Your task to perform on an android device: Go to network settings Image 0: 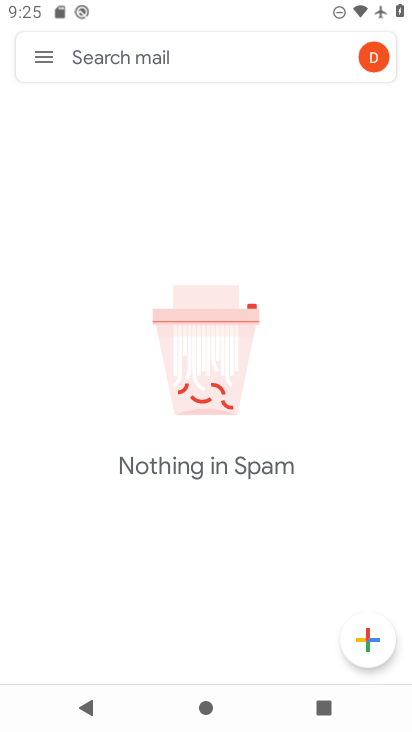
Step 0: press home button
Your task to perform on an android device: Go to network settings Image 1: 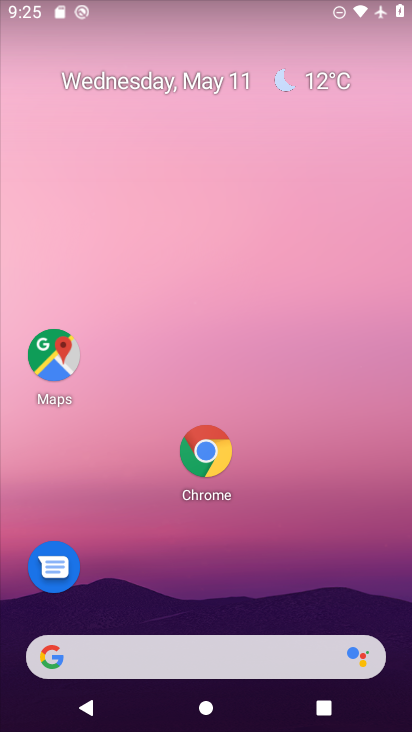
Step 1: drag from (164, 671) to (279, 181)
Your task to perform on an android device: Go to network settings Image 2: 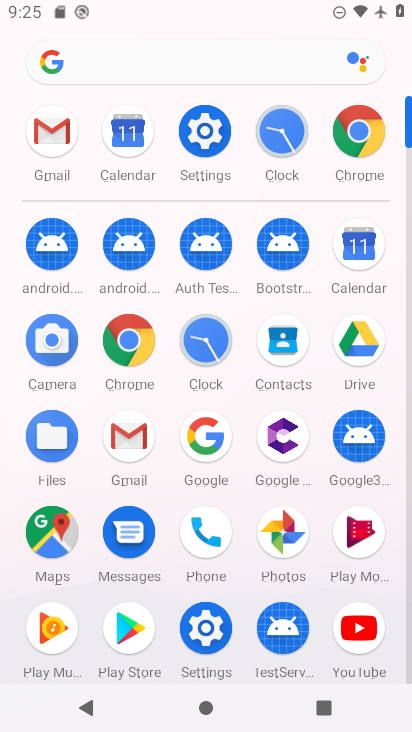
Step 2: click (200, 128)
Your task to perform on an android device: Go to network settings Image 3: 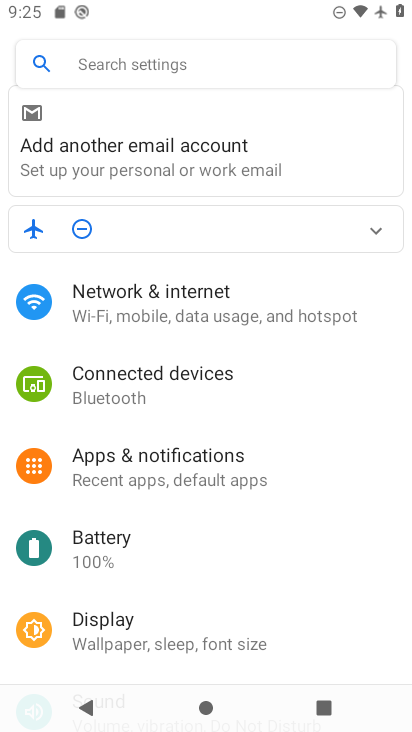
Step 3: click (186, 287)
Your task to perform on an android device: Go to network settings Image 4: 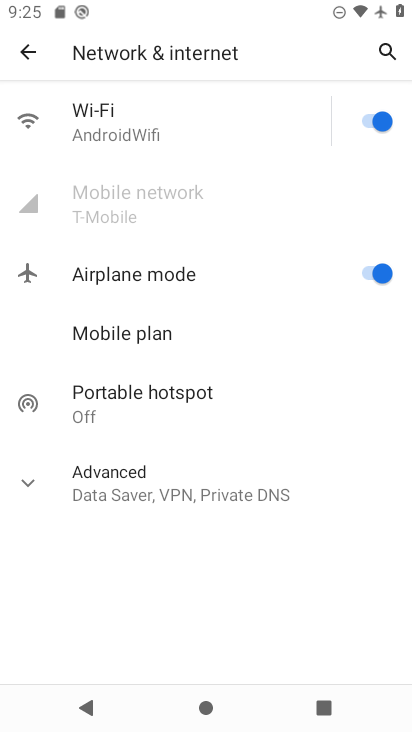
Step 4: task complete